Your task to perform on an android device: open wifi settings Image 0: 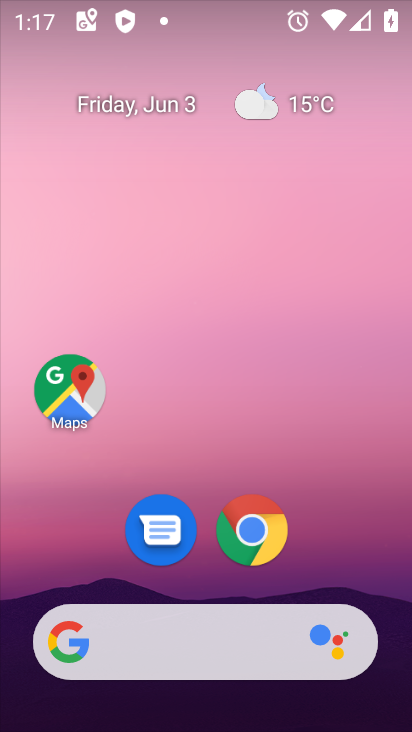
Step 0: drag from (237, 4) to (262, 404)
Your task to perform on an android device: open wifi settings Image 1: 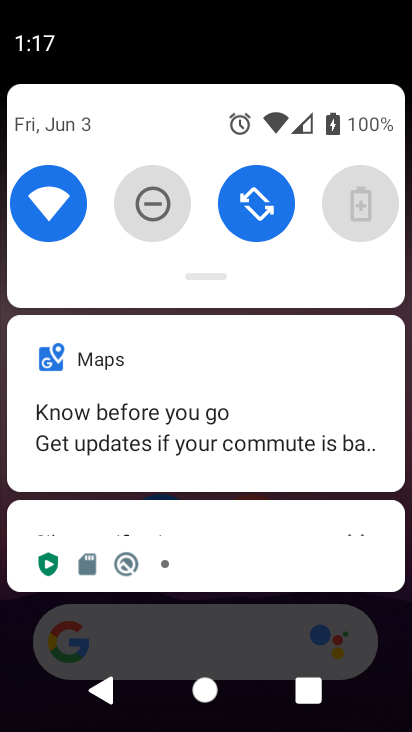
Step 1: click (53, 215)
Your task to perform on an android device: open wifi settings Image 2: 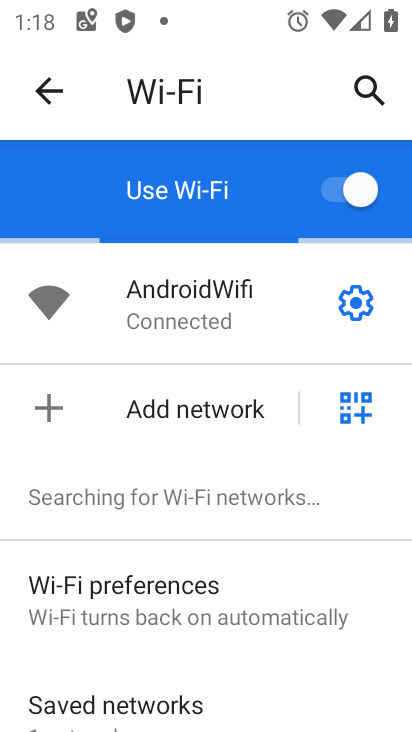
Step 2: click (349, 309)
Your task to perform on an android device: open wifi settings Image 3: 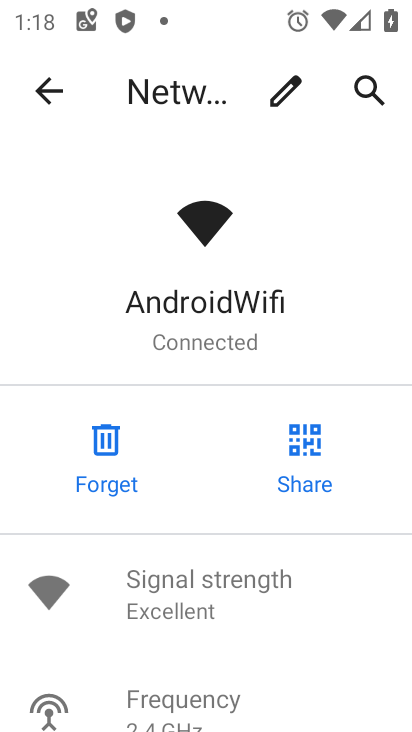
Step 3: task complete